Your task to perform on an android device: turn notification dots off Image 0: 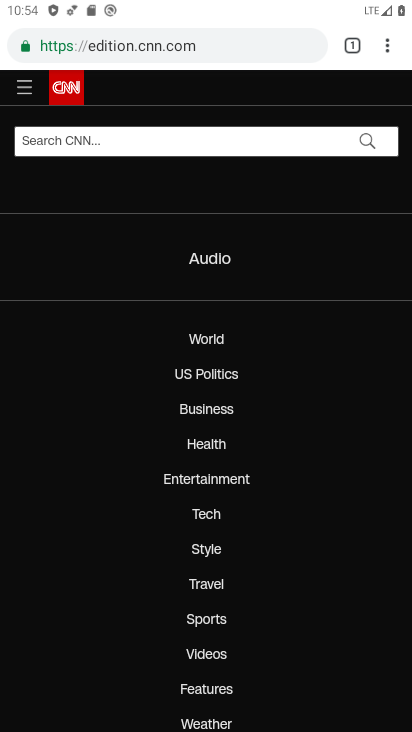
Step 0: task complete